Your task to perform on an android device: turn on priority inbox in the gmail app Image 0: 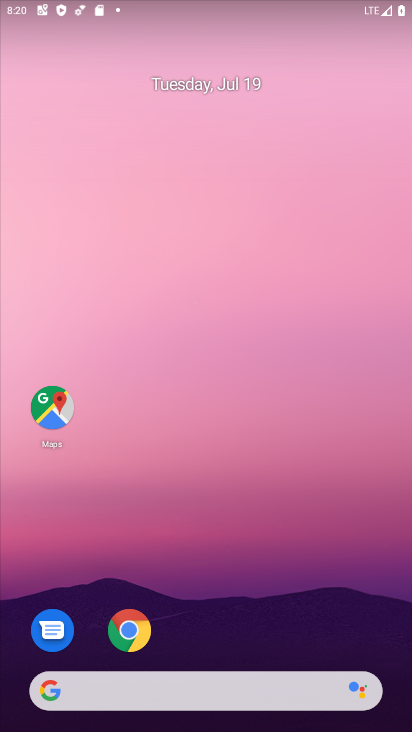
Step 0: drag from (181, 661) to (198, 90)
Your task to perform on an android device: turn on priority inbox in the gmail app Image 1: 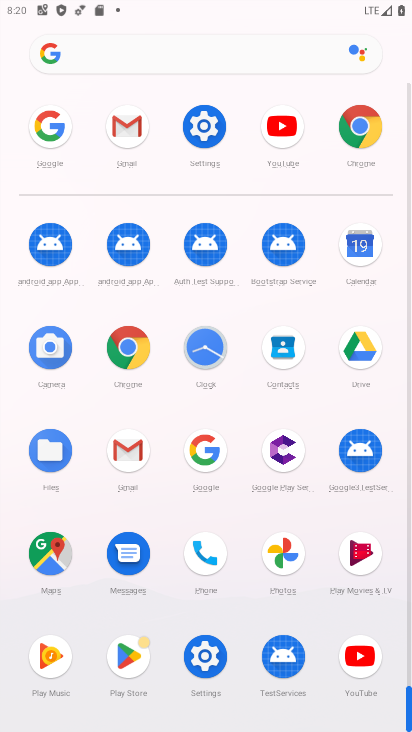
Step 1: click (116, 469)
Your task to perform on an android device: turn on priority inbox in the gmail app Image 2: 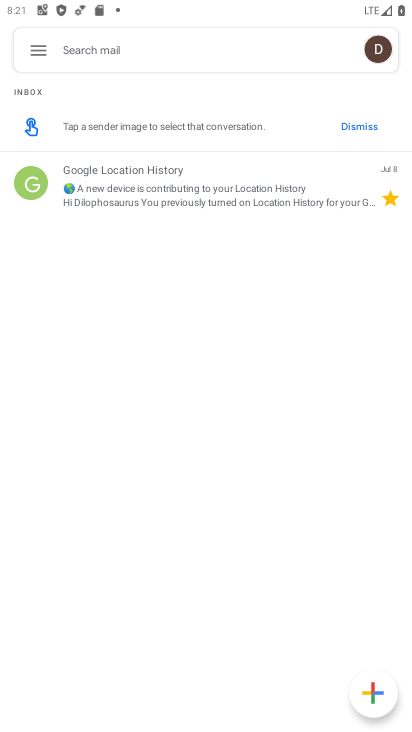
Step 2: click (44, 51)
Your task to perform on an android device: turn on priority inbox in the gmail app Image 3: 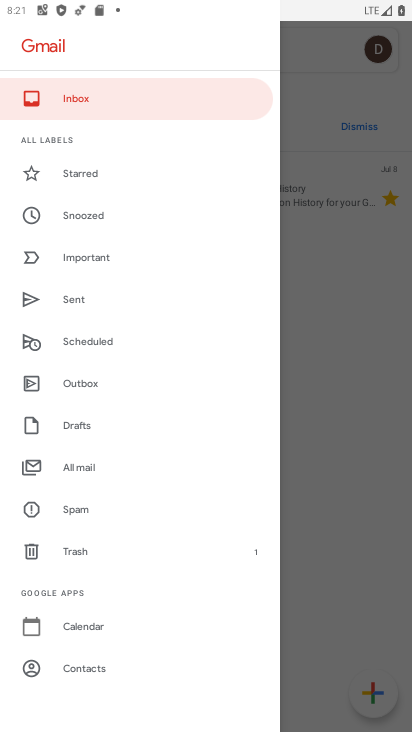
Step 3: drag from (89, 614) to (110, 224)
Your task to perform on an android device: turn on priority inbox in the gmail app Image 4: 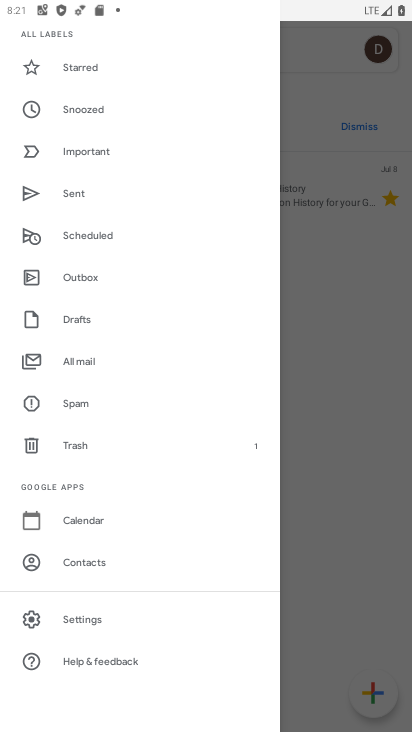
Step 4: click (83, 628)
Your task to perform on an android device: turn on priority inbox in the gmail app Image 5: 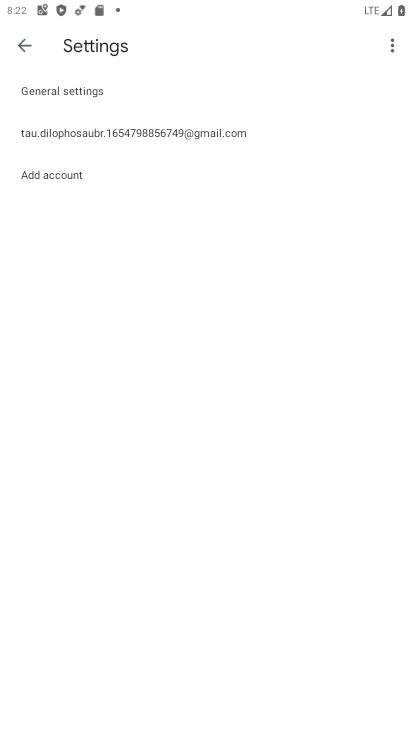
Step 5: click (162, 123)
Your task to perform on an android device: turn on priority inbox in the gmail app Image 6: 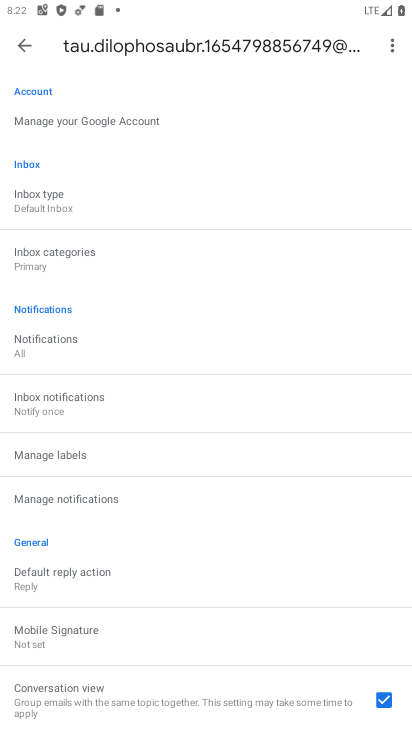
Step 6: click (62, 197)
Your task to perform on an android device: turn on priority inbox in the gmail app Image 7: 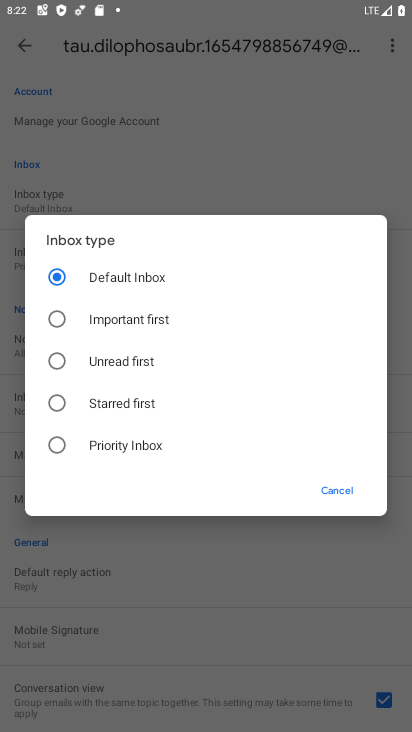
Step 7: click (68, 435)
Your task to perform on an android device: turn on priority inbox in the gmail app Image 8: 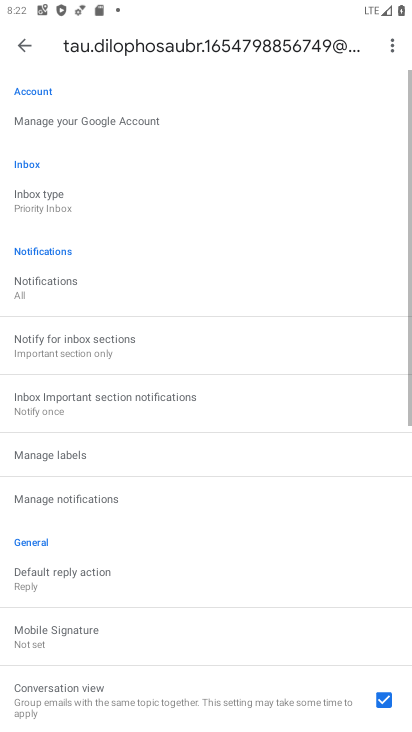
Step 8: task complete